Your task to perform on an android device: Play the new Demi Lovato video on YouTube Image 0: 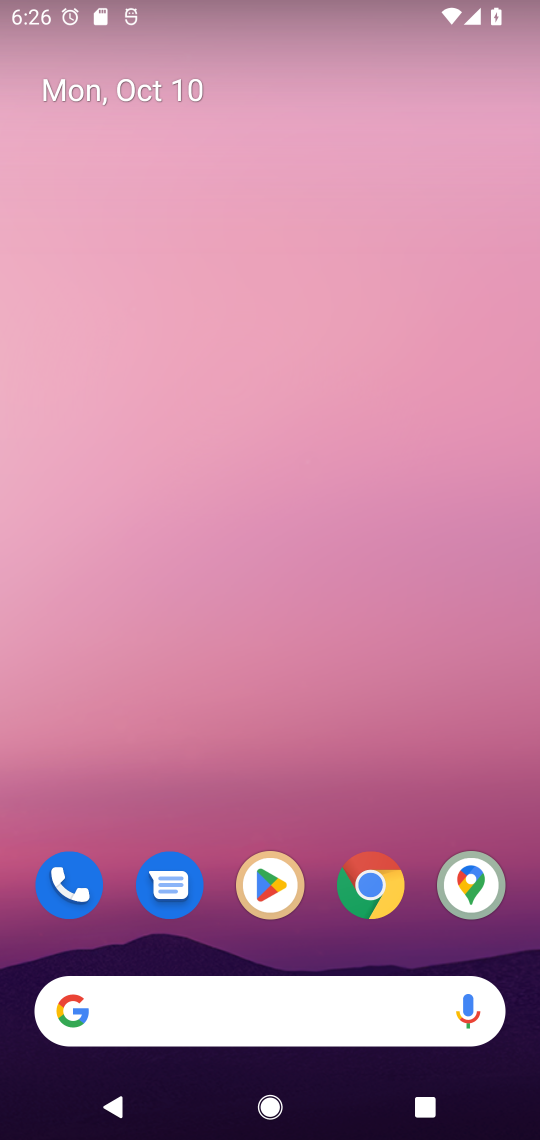
Step 0: drag from (324, 803) to (315, 220)
Your task to perform on an android device: Play the new Demi Lovato video on YouTube Image 1: 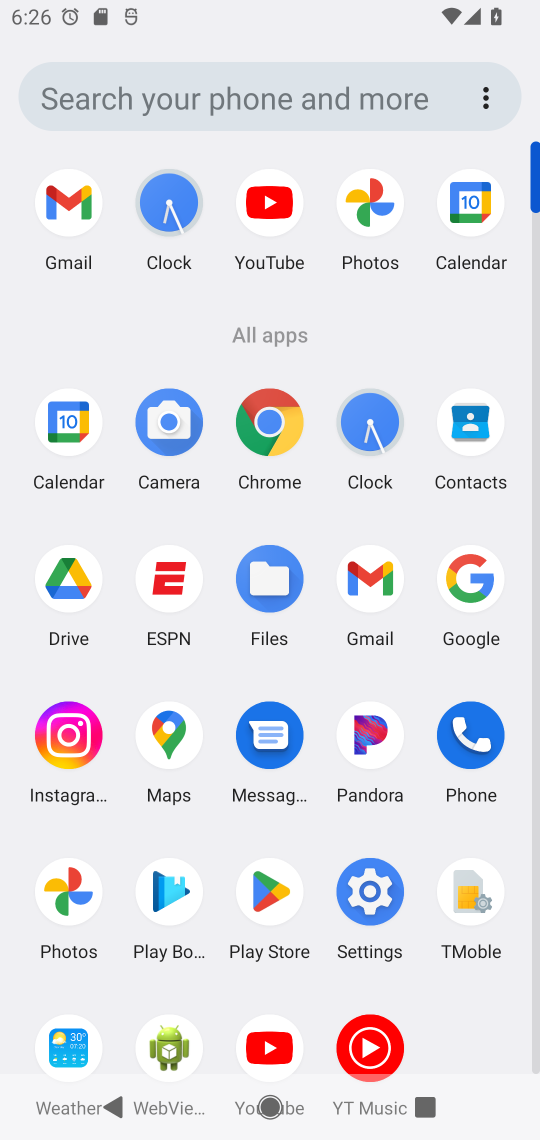
Step 1: click (270, 215)
Your task to perform on an android device: Play the new Demi Lovato video on YouTube Image 2: 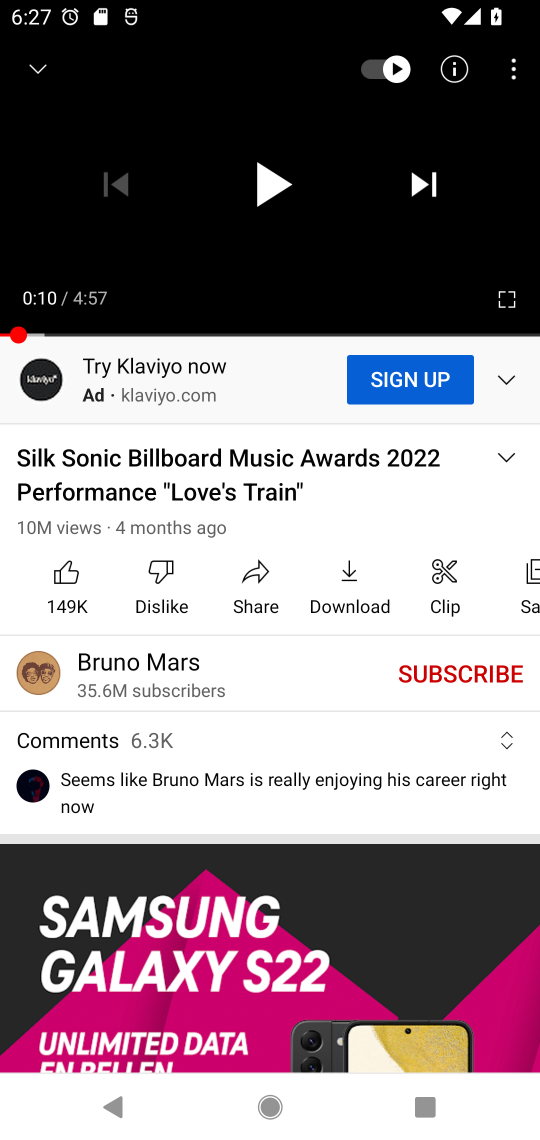
Step 2: click (44, 69)
Your task to perform on an android device: Play the new Demi Lovato video on YouTube Image 3: 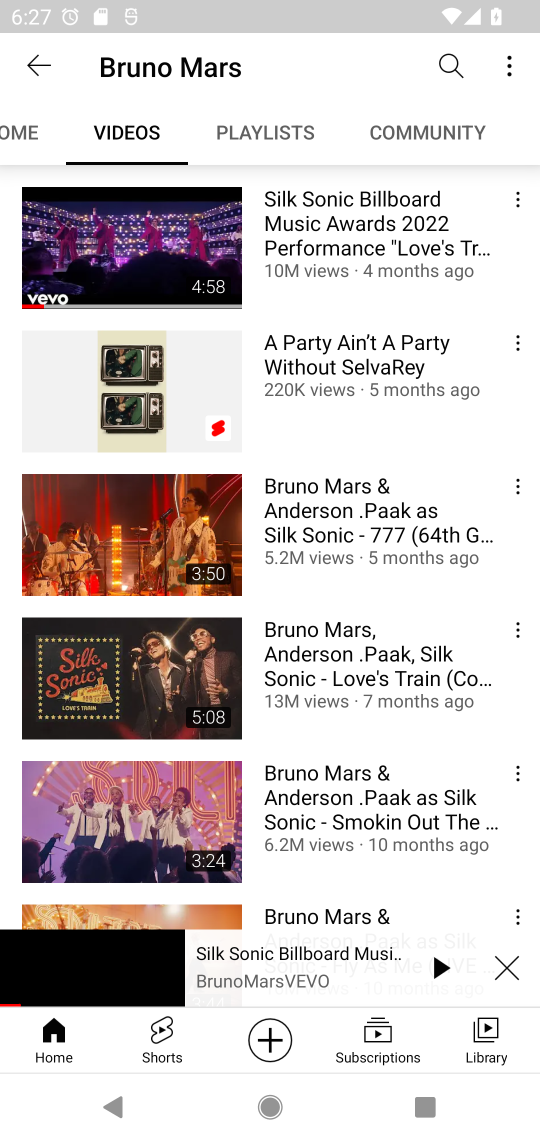
Step 3: click (453, 66)
Your task to perform on an android device: Play the new Demi Lovato video on YouTube Image 4: 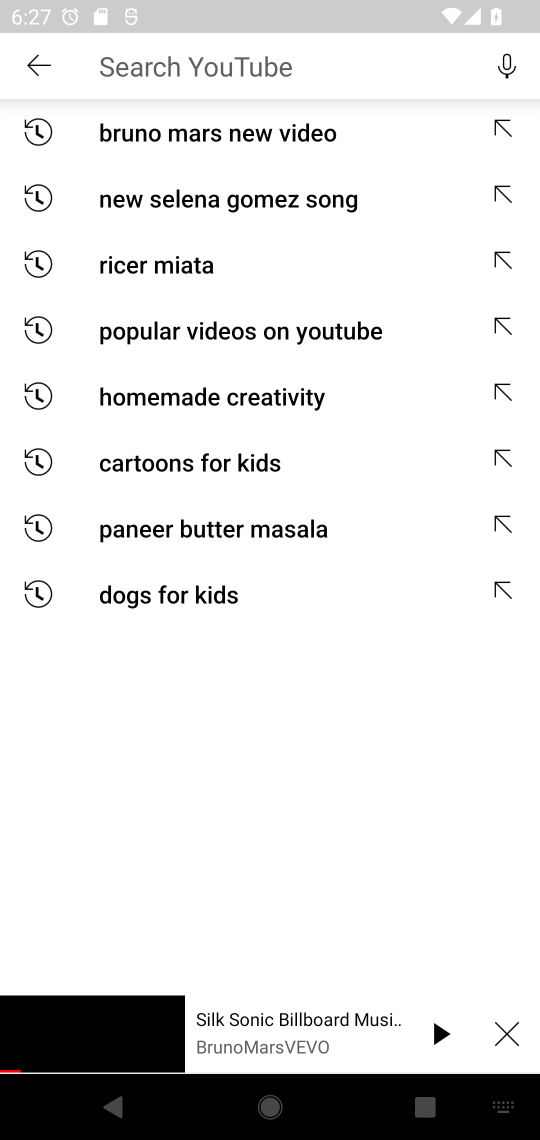
Step 4: click (297, 65)
Your task to perform on an android device: Play the new Demi Lovato video on YouTube Image 5: 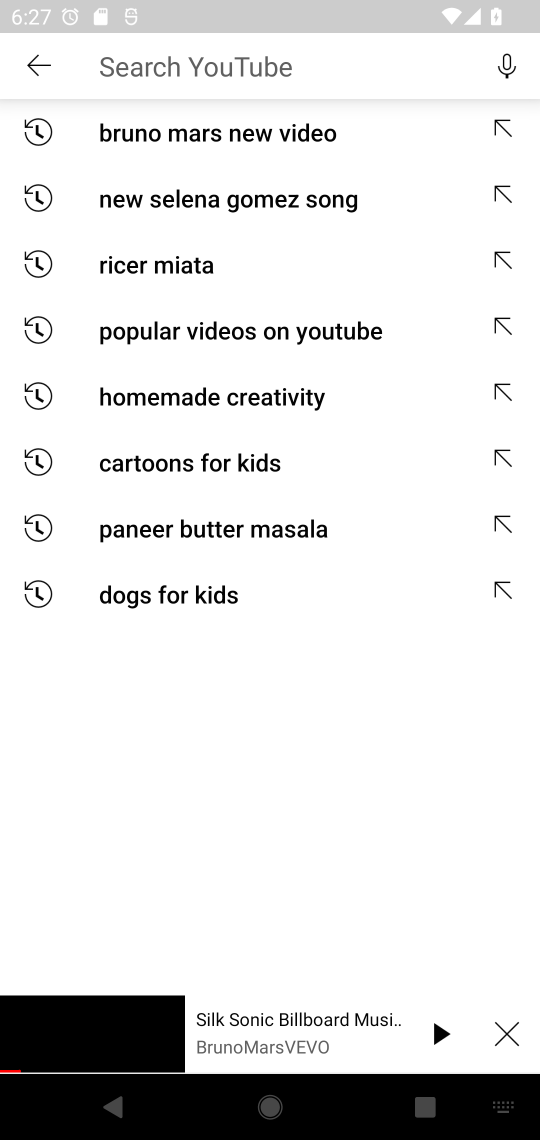
Step 5: type "new Demi Lovato video"
Your task to perform on an android device: Play the new Demi Lovato video on YouTube Image 6: 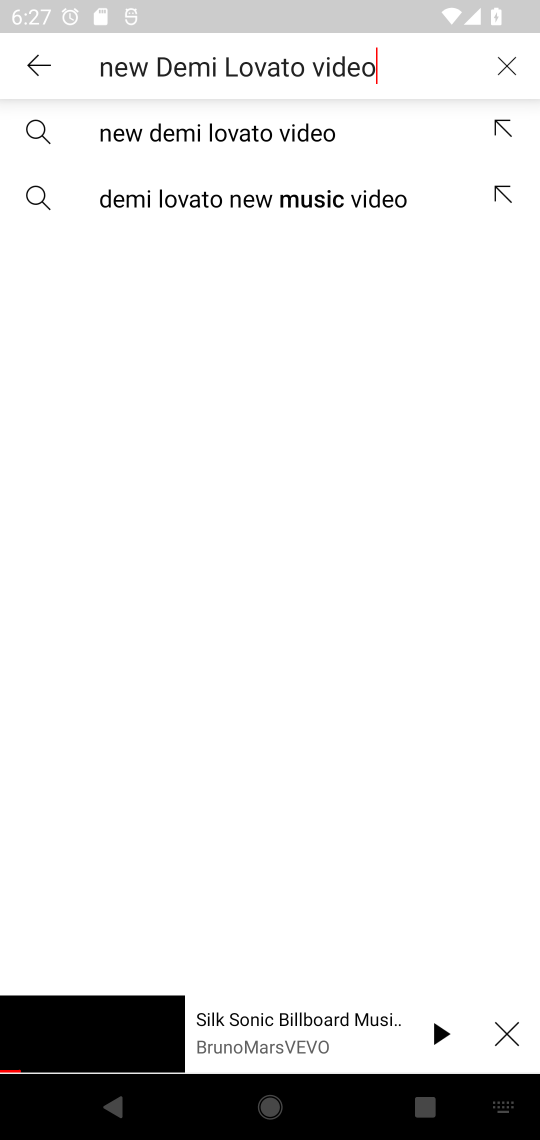
Step 6: click (262, 139)
Your task to perform on an android device: Play the new Demi Lovato video on YouTube Image 7: 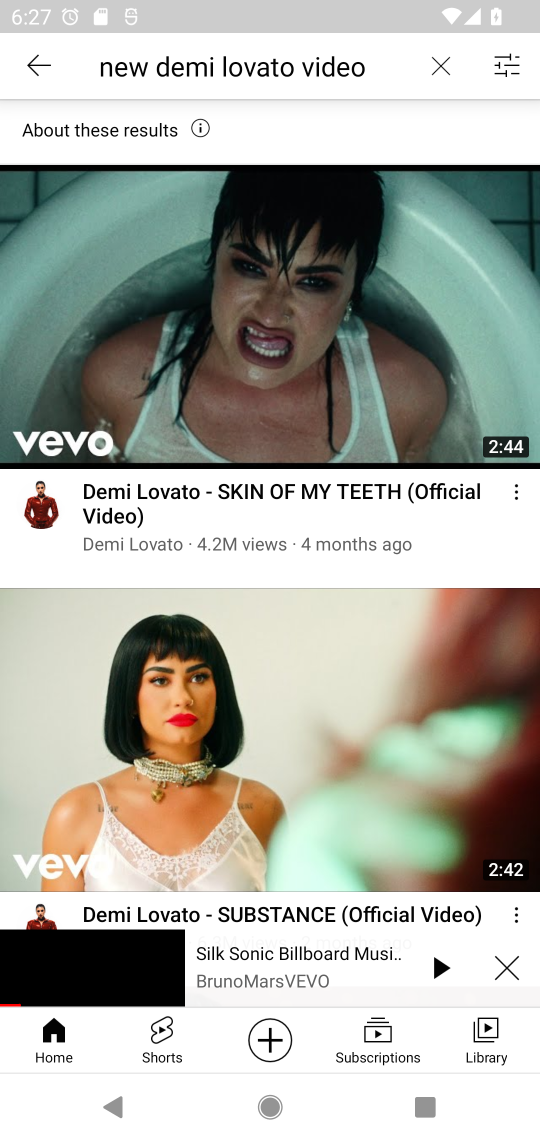
Step 7: drag from (251, 536) to (291, 262)
Your task to perform on an android device: Play the new Demi Lovato video on YouTube Image 8: 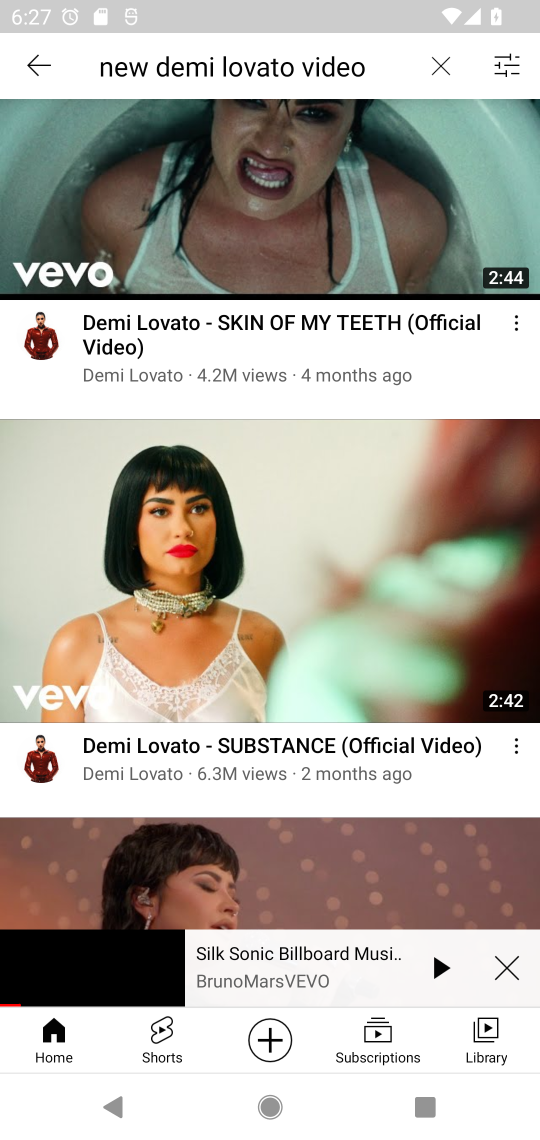
Step 8: drag from (361, 793) to (285, 224)
Your task to perform on an android device: Play the new Demi Lovato video on YouTube Image 9: 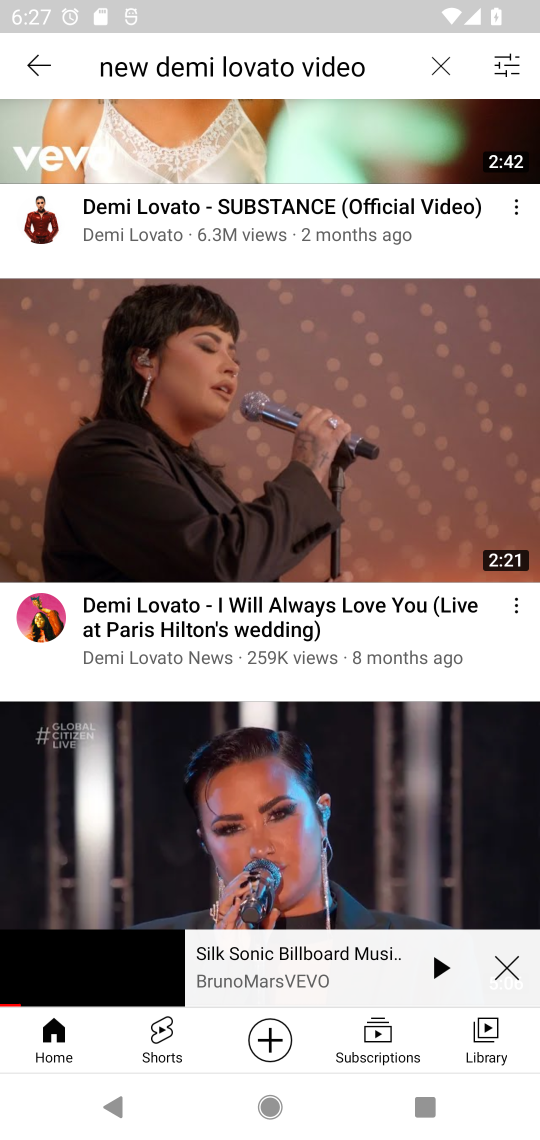
Step 9: drag from (332, 680) to (238, 834)
Your task to perform on an android device: Play the new Demi Lovato video on YouTube Image 10: 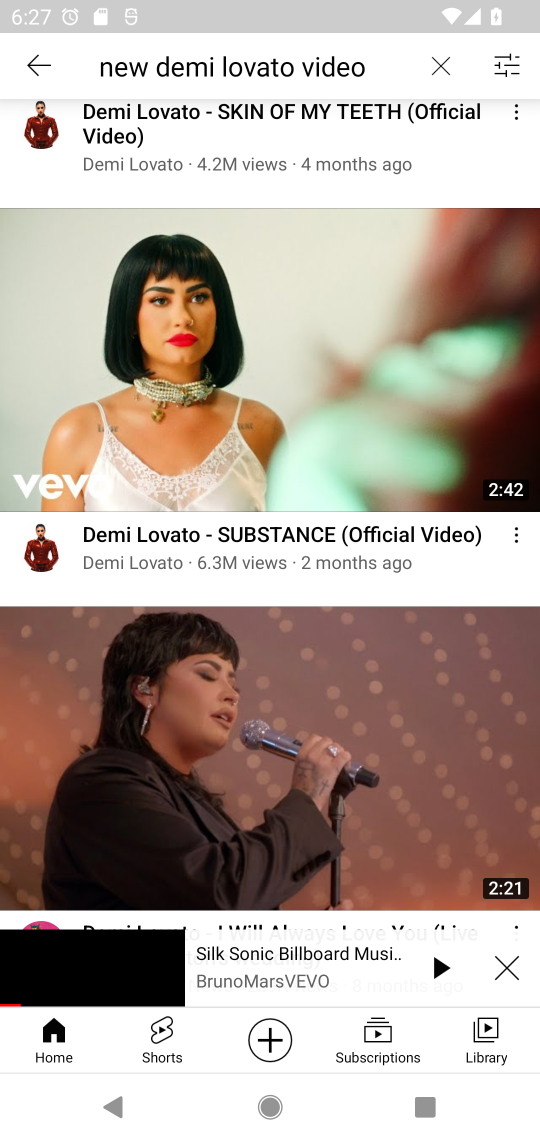
Step 10: click (228, 493)
Your task to perform on an android device: Play the new Demi Lovato video on YouTube Image 11: 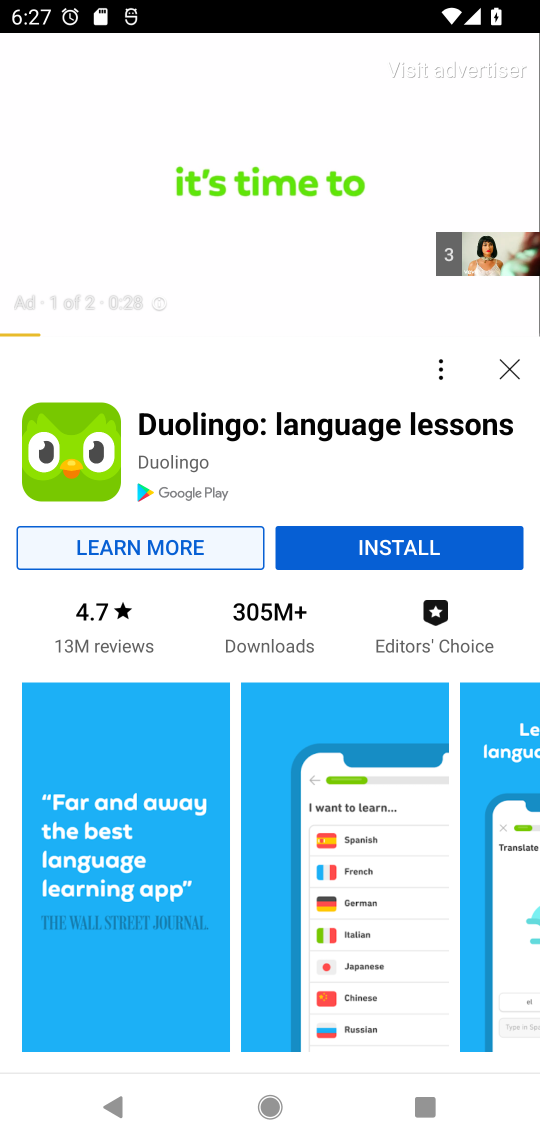
Step 11: click (504, 366)
Your task to perform on an android device: Play the new Demi Lovato video on YouTube Image 12: 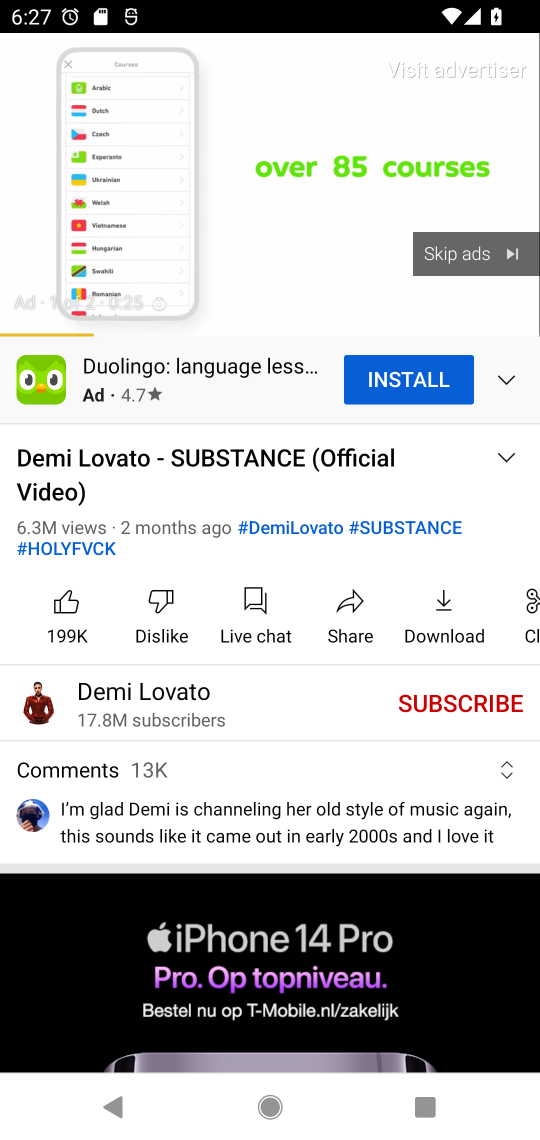
Step 12: click (143, 692)
Your task to perform on an android device: Play the new Demi Lovato video on YouTube Image 13: 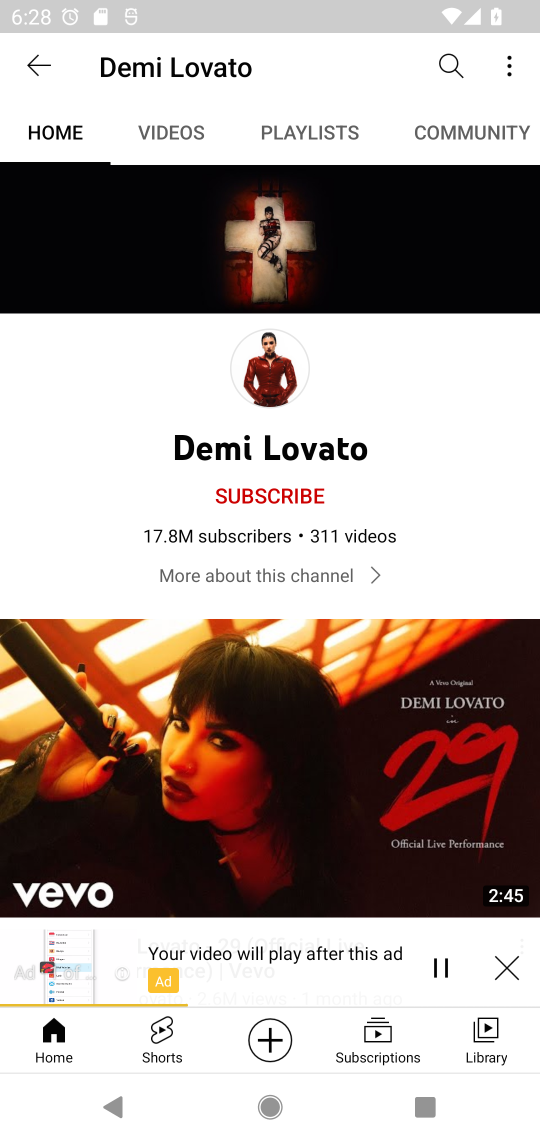
Step 13: click (174, 135)
Your task to perform on an android device: Play the new Demi Lovato video on YouTube Image 14: 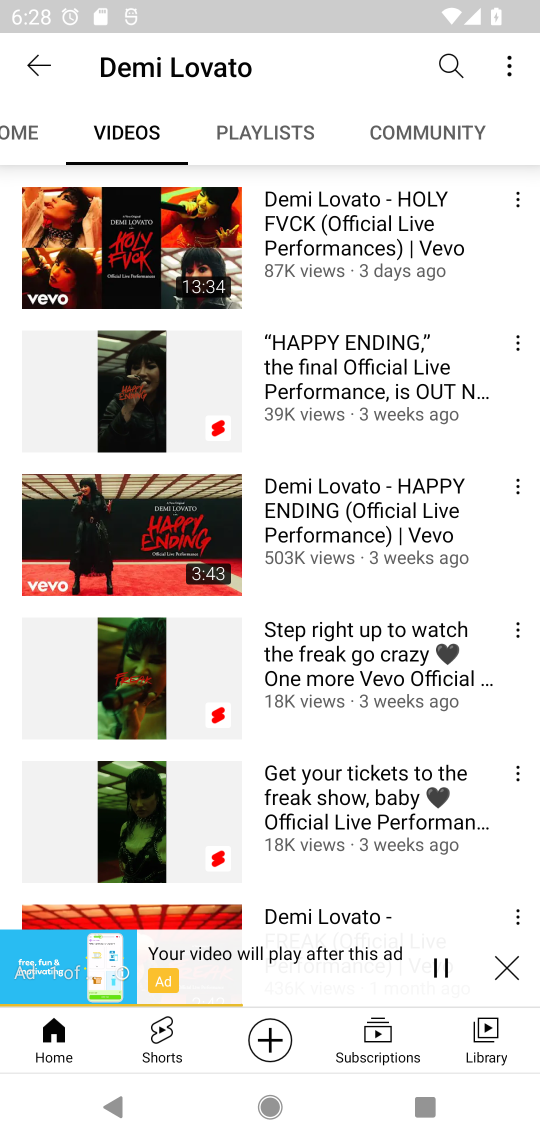
Step 14: click (172, 247)
Your task to perform on an android device: Play the new Demi Lovato video on YouTube Image 15: 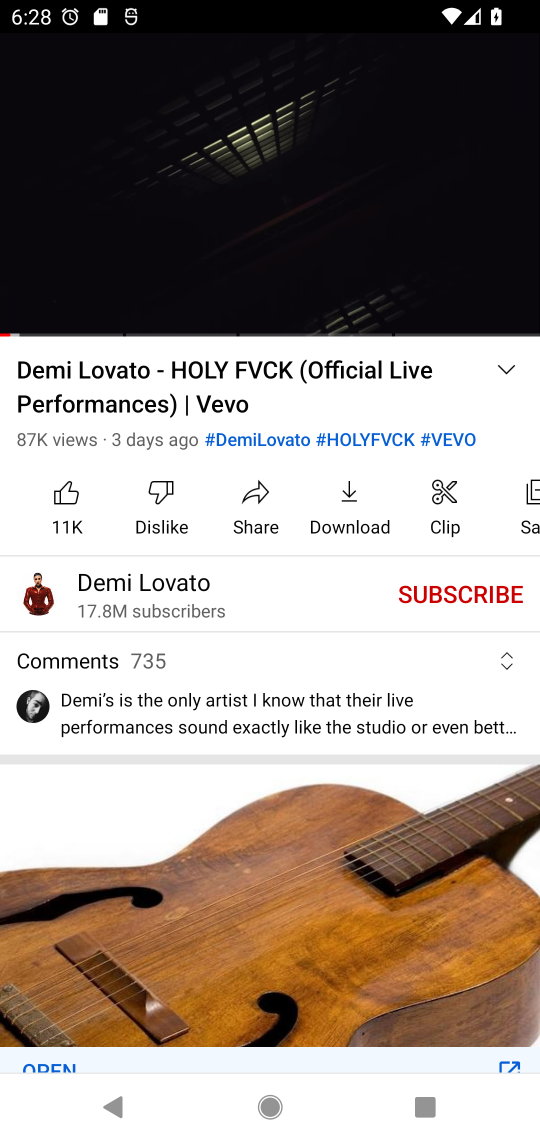
Step 15: task complete